Your task to perform on an android device: What's on my calendar tomorrow? Image 0: 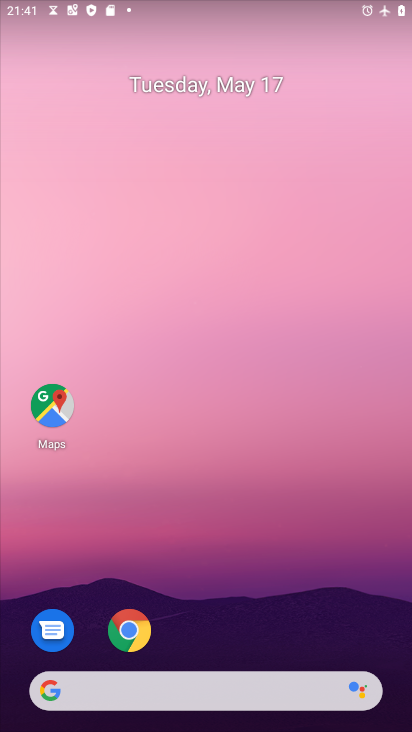
Step 0: drag from (222, 576) to (180, 100)
Your task to perform on an android device: What's on my calendar tomorrow? Image 1: 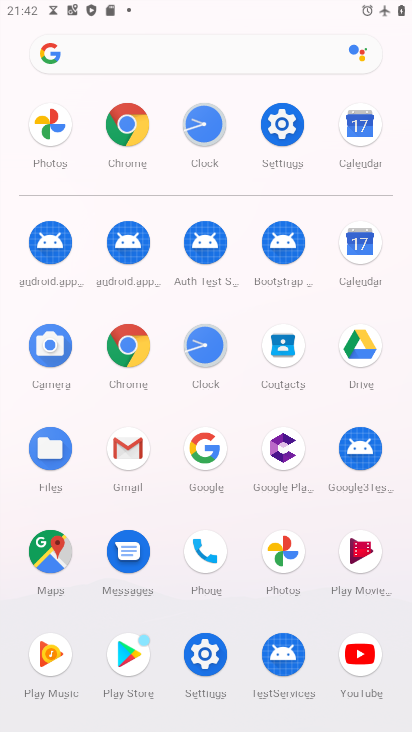
Step 1: click (366, 243)
Your task to perform on an android device: What's on my calendar tomorrow? Image 2: 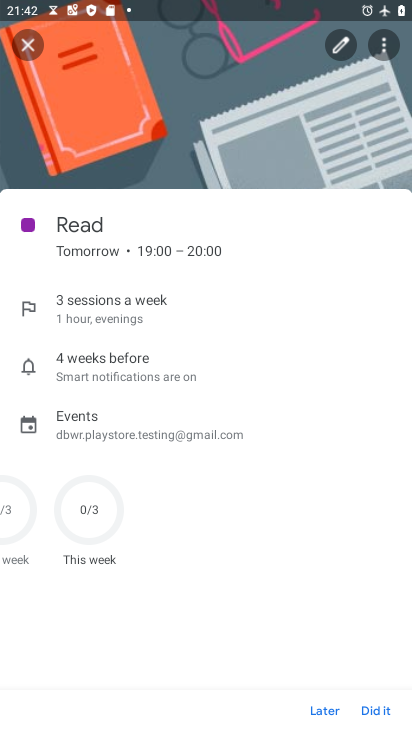
Step 2: click (29, 48)
Your task to perform on an android device: What's on my calendar tomorrow? Image 3: 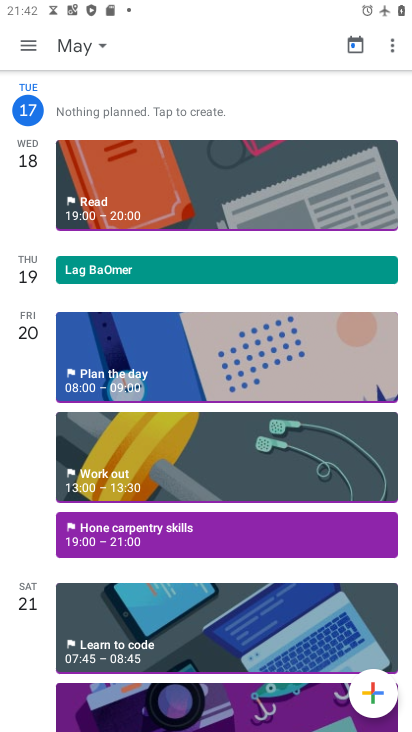
Step 3: task complete